Your task to perform on an android device: turn off translation in the chrome app Image 0: 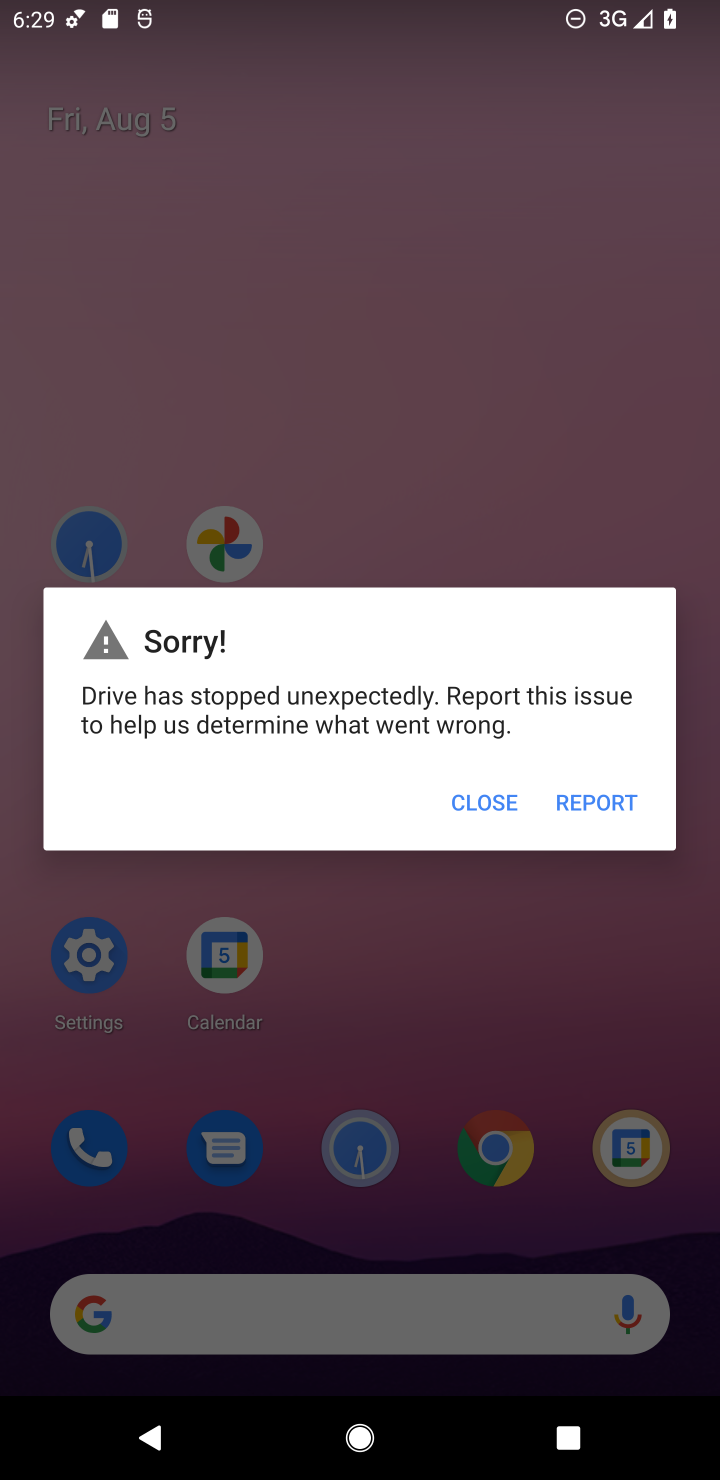
Step 0: press home button
Your task to perform on an android device: turn off translation in the chrome app Image 1: 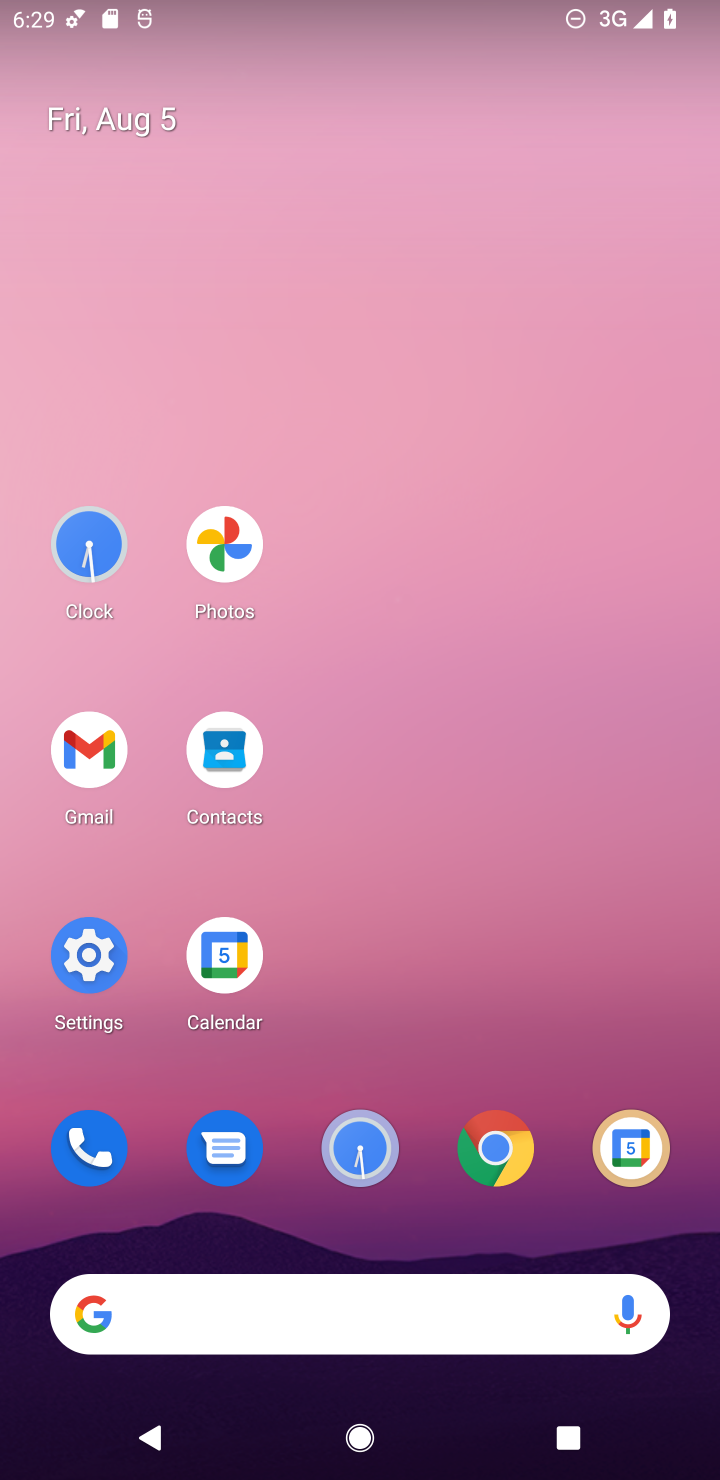
Step 1: click (488, 1184)
Your task to perform on an android device: turn off translation in the chrome app Image 2: 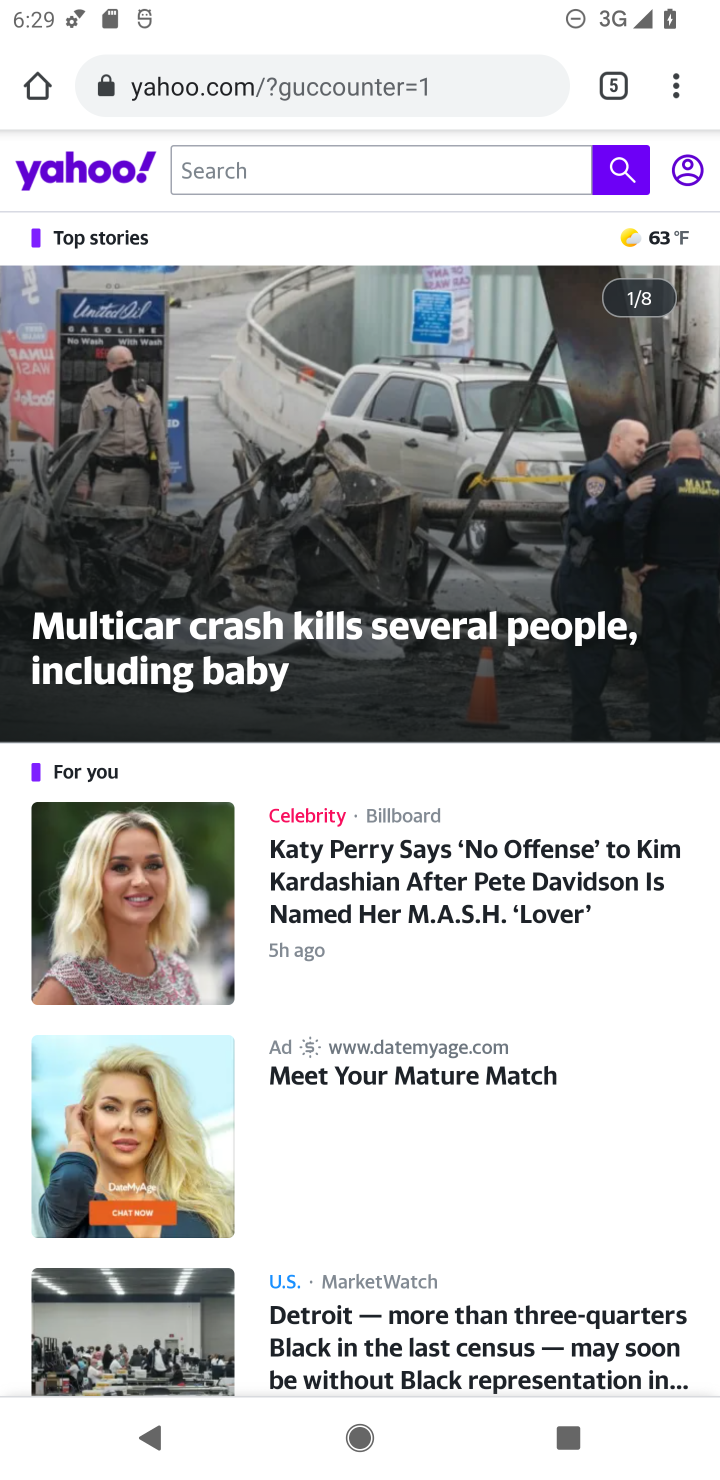
Step 2: click (683, 78)
Your task to perform on an android device: turn off translation in the chrome app Image 3: 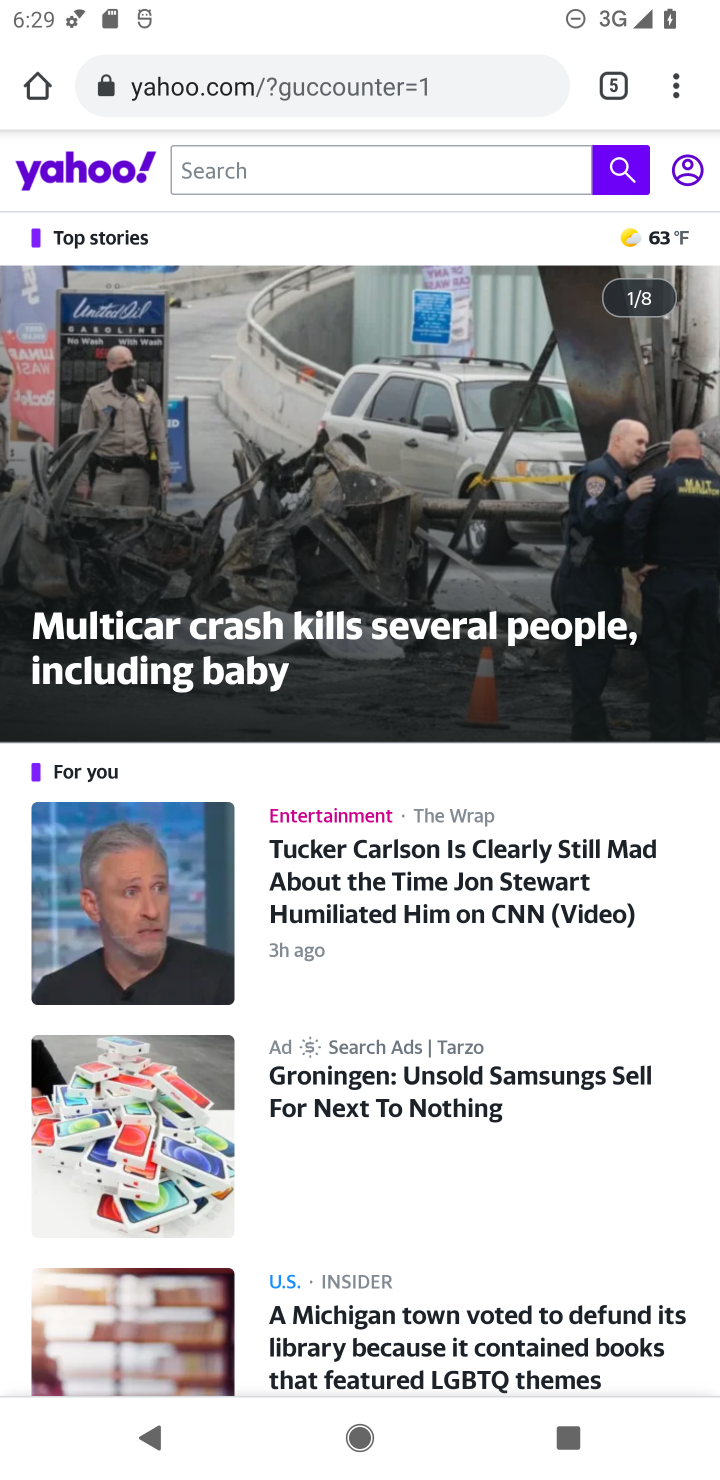
Step 3: click (684, 98)
Your task to perform on an android device: turn off translation in the chrome app Image 4: 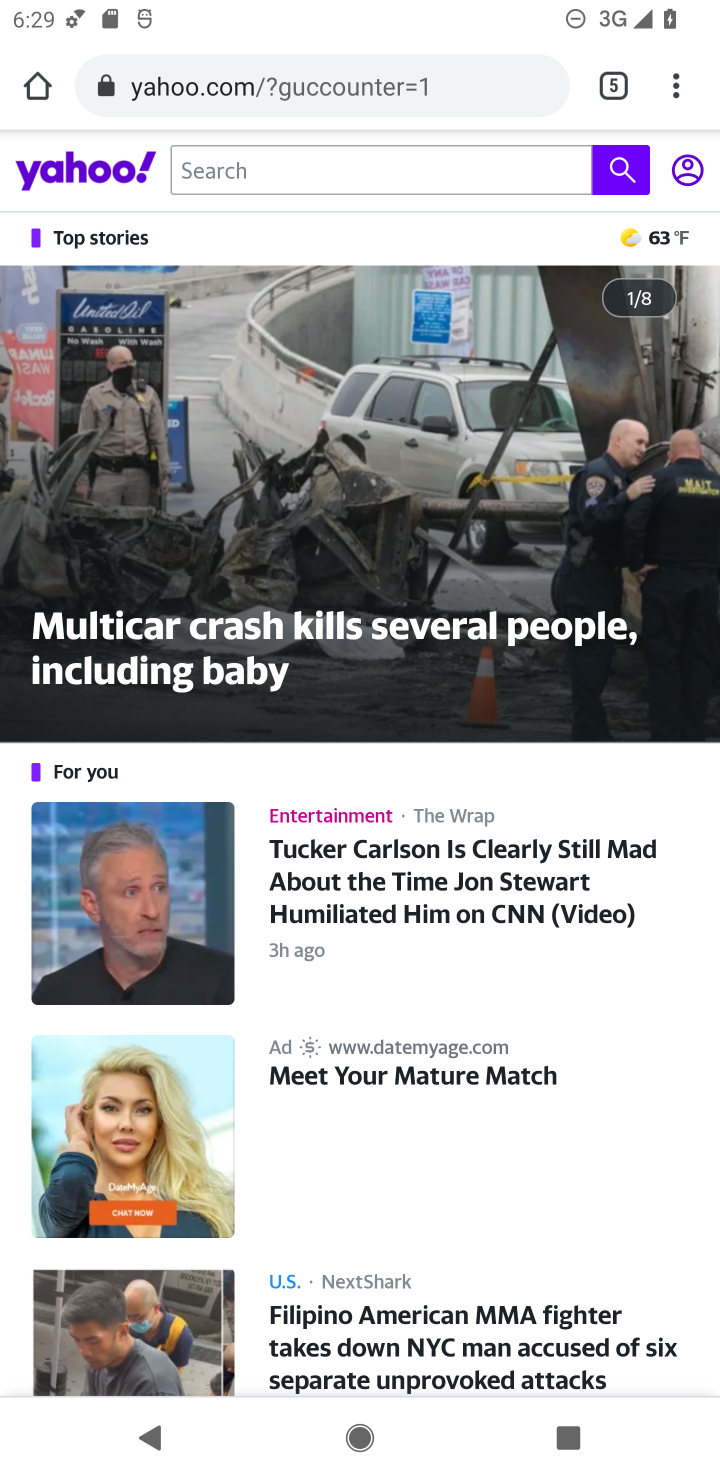
Step 4: click (665, 78)
Your task to perform on an android device: turn off translation in the chrome app Image 5: 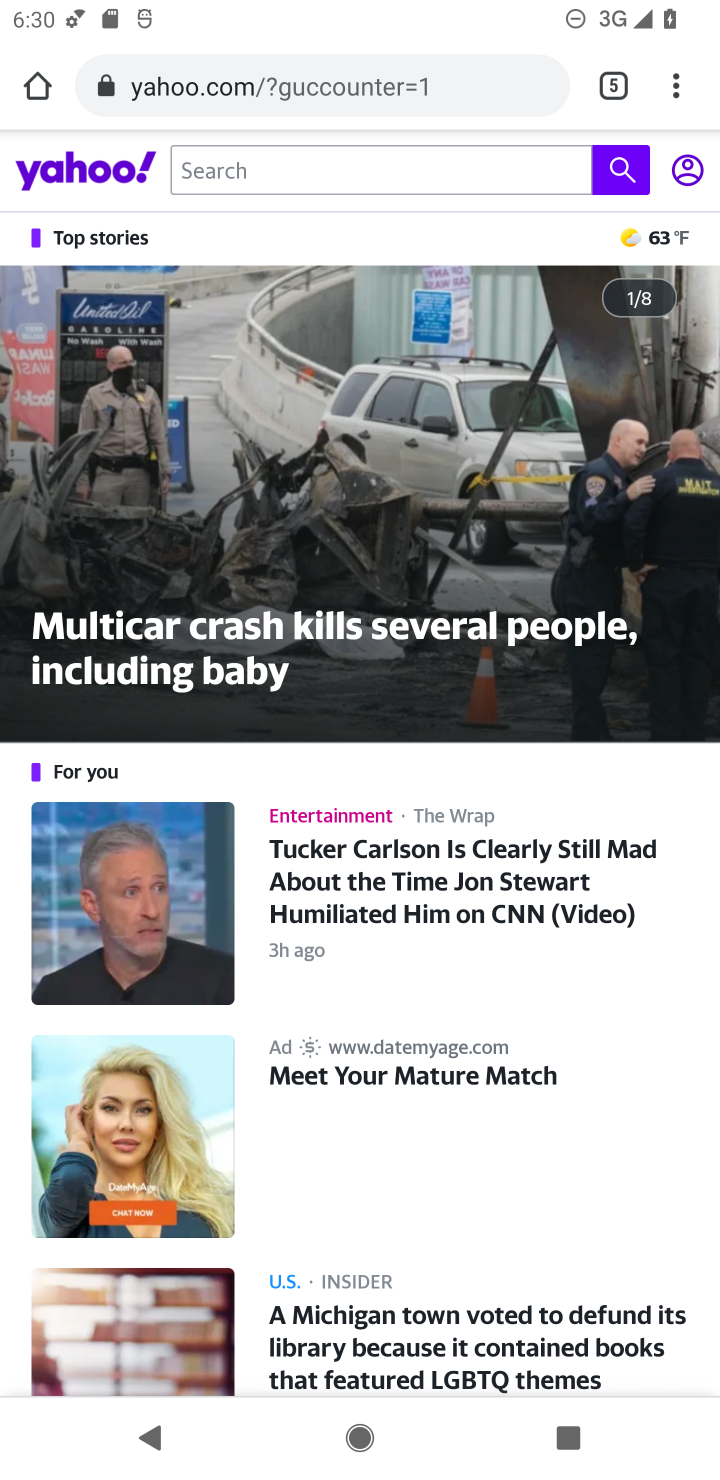
Step 5: click (679, 96)
Your task to perform on an android device: turn off translation in the chrome app Image 6: 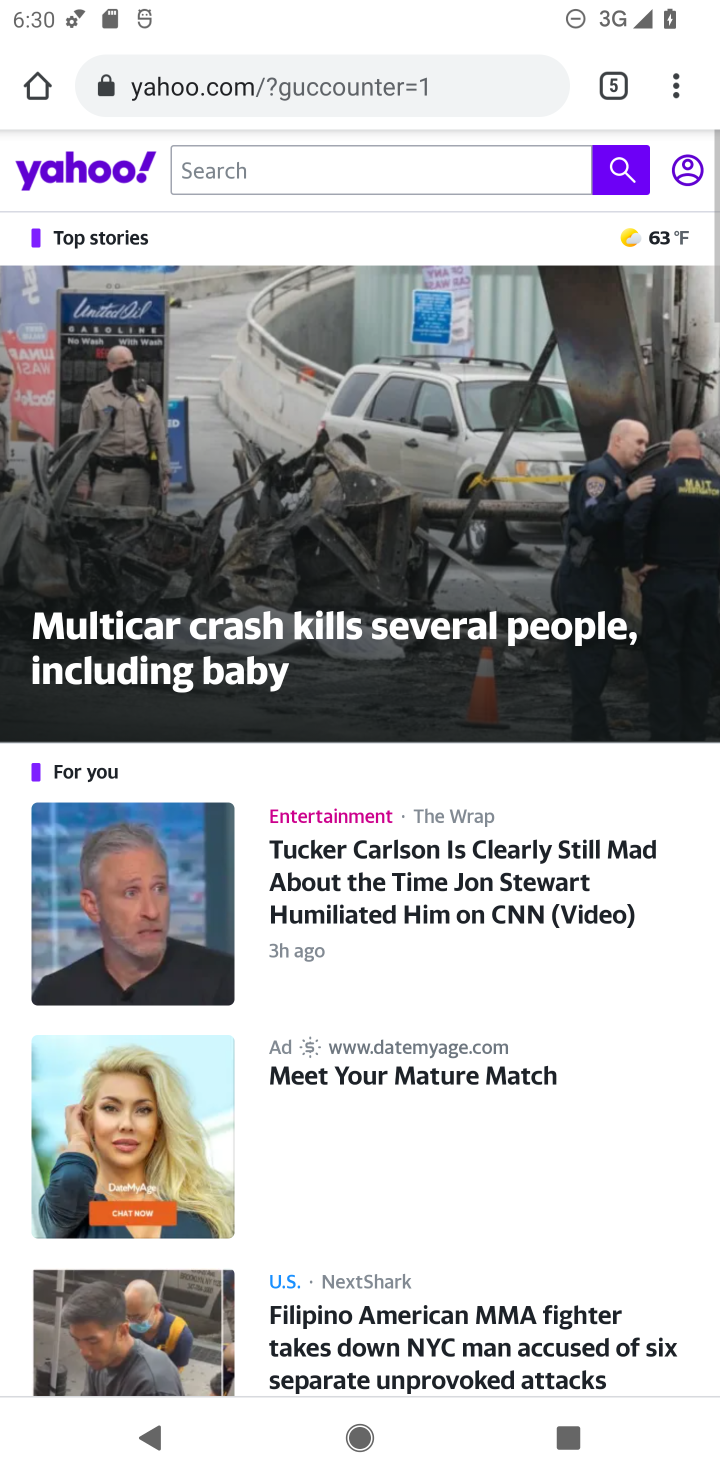
Step 6: click (681, 104)
Your task to perform on an android device: turn off translation in the chrome app Image 7: 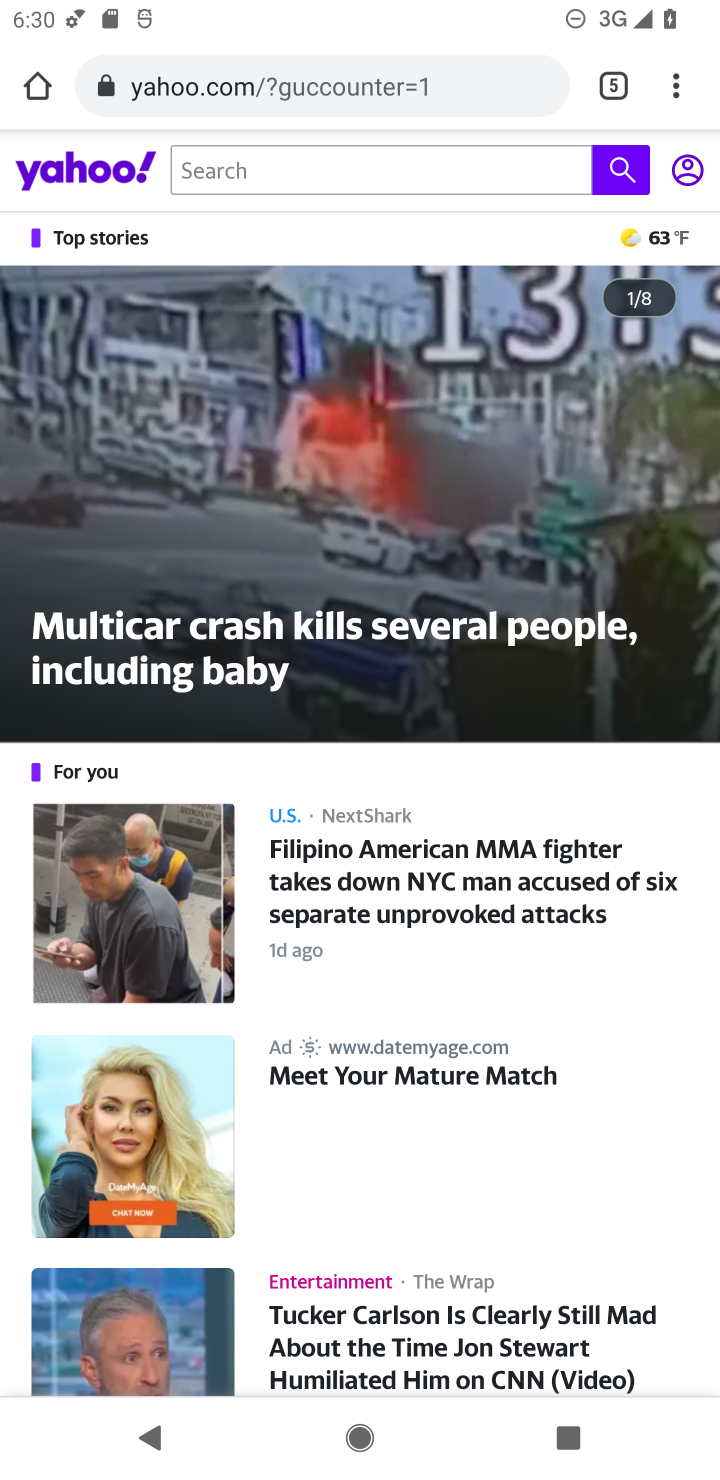
Step 7: click (670, 74)
Your task to perform on an android device: turn off translation in the chrome app Image 8: 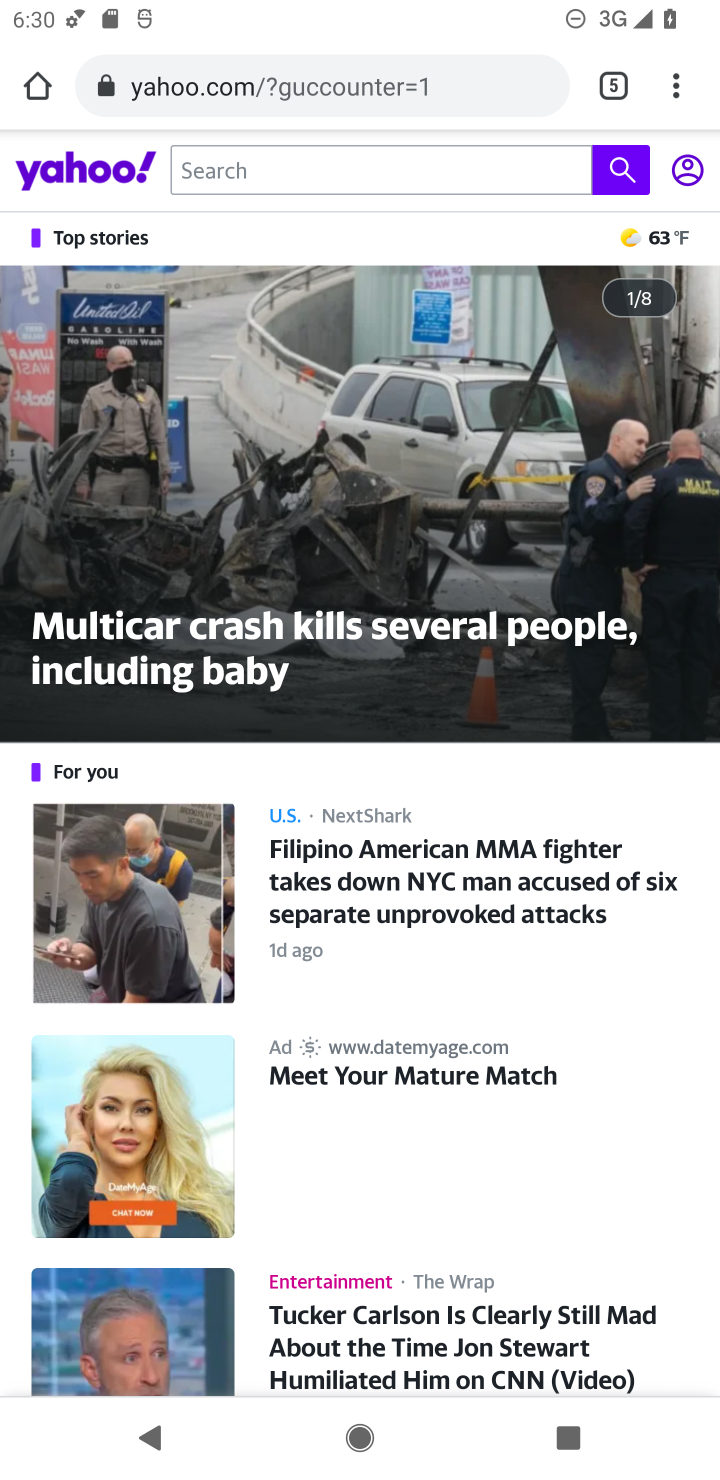
Step 8: click (679, 95)
Your task to perform on an android device: turn off translation in the chrome app Image 9: 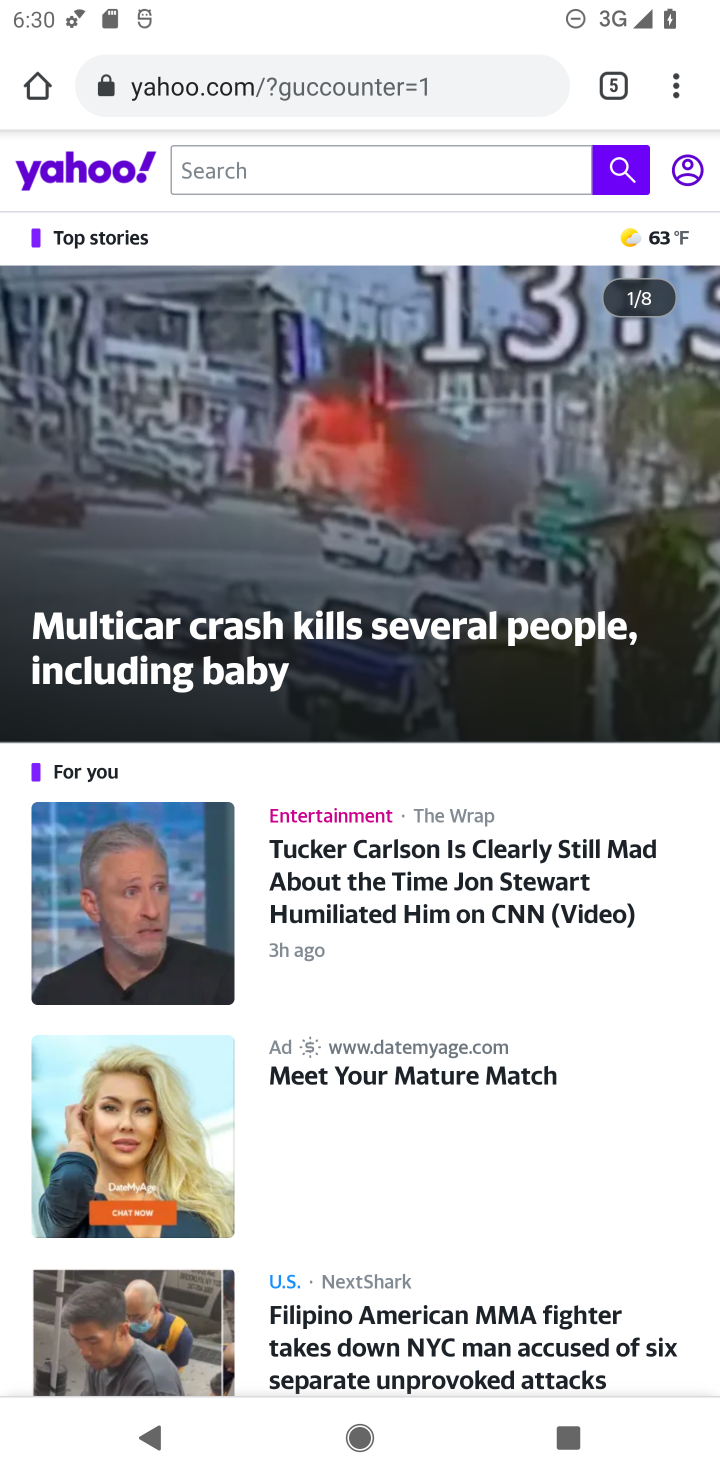
Step 9: click (676, 100)
Your task to perform on an android device: turn off translation in the chrome app Image 10: 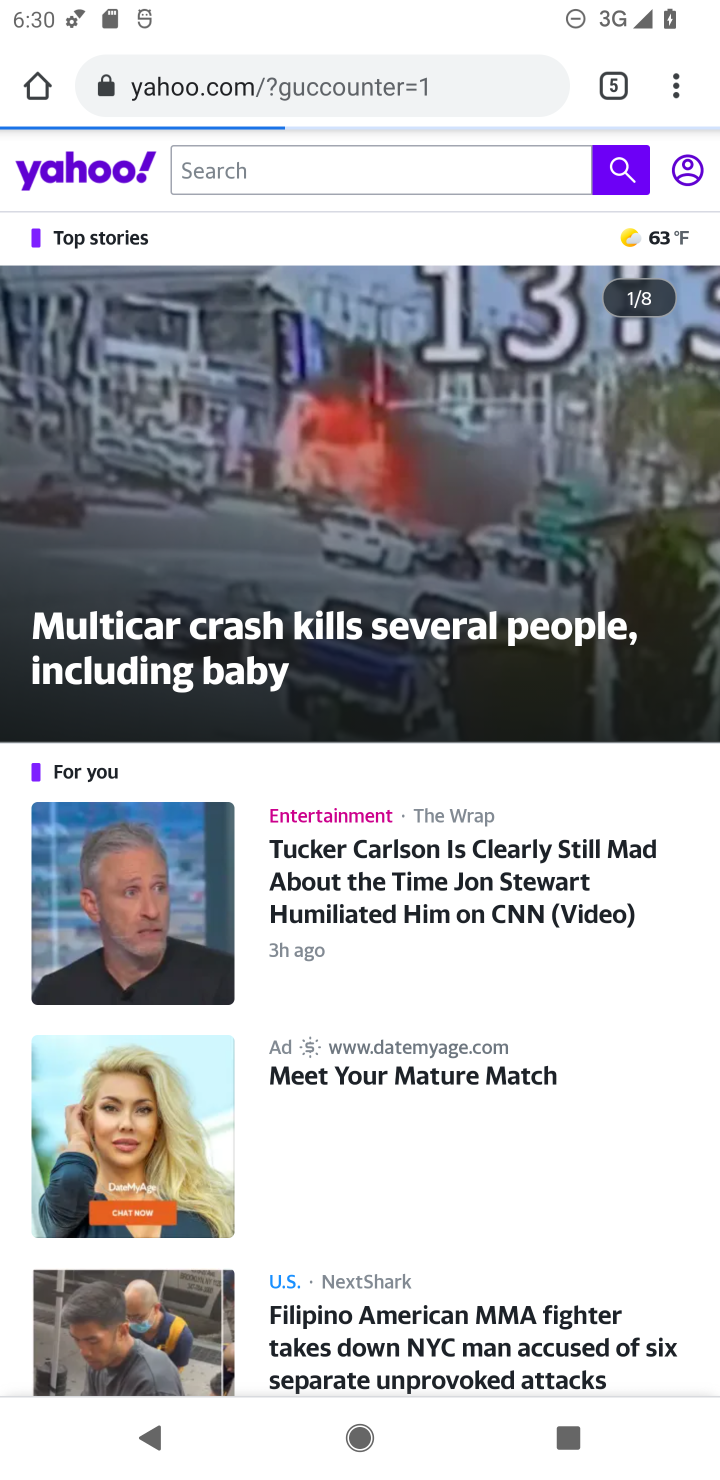
Step 10: click (676, 100)
Your task to perform on an android device: turn off translation in the chrome app Image 11: 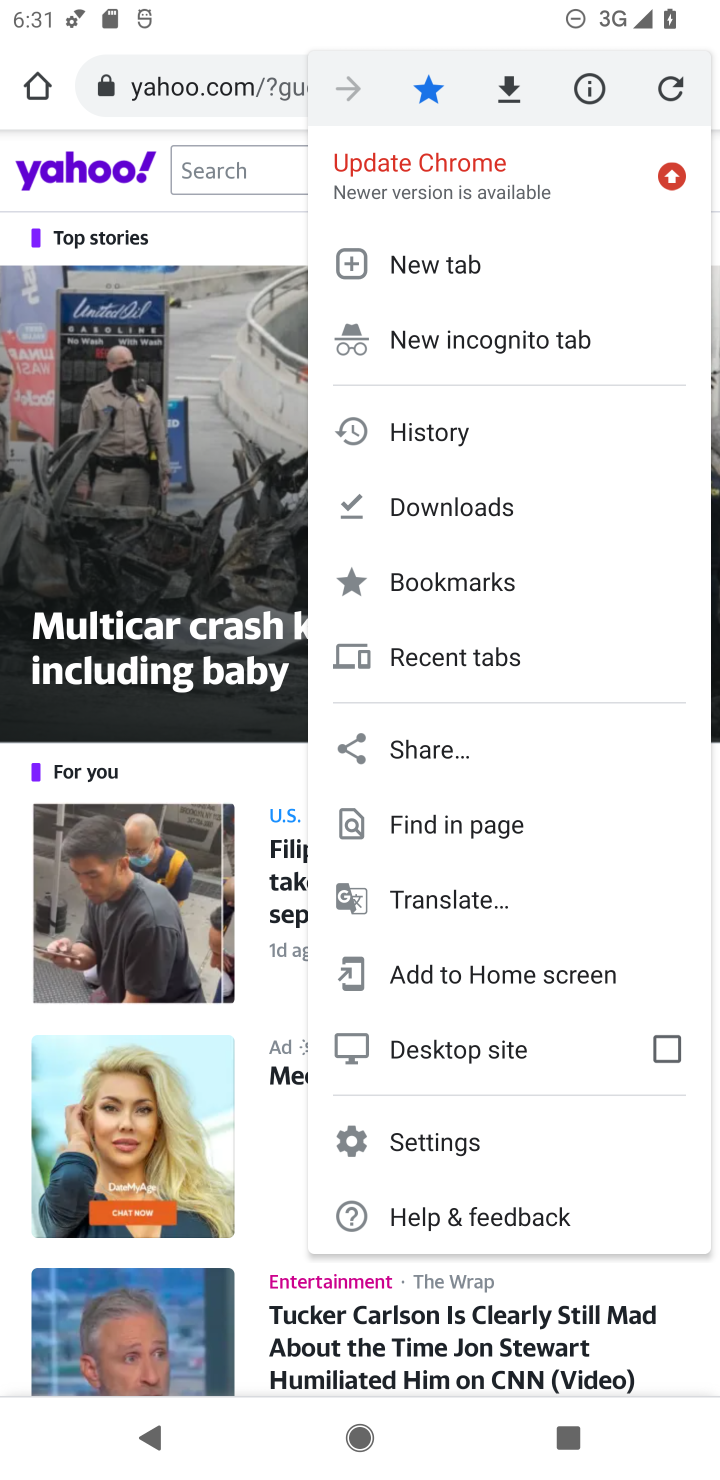
Step 11: click (423, 1155)
Your task to perform on an android device: turn off translation in the chrome app Image 12: 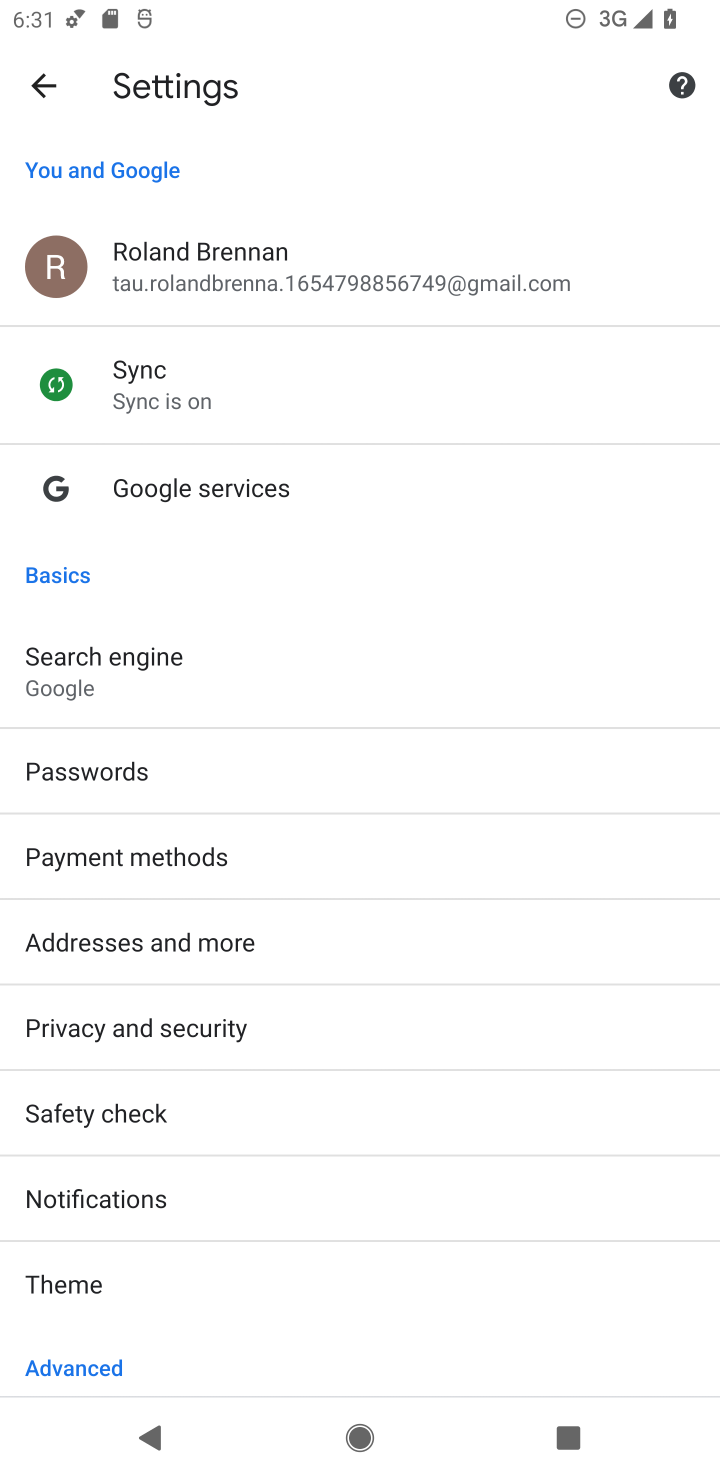
Step 12: drag from (274, 1316) to (150, 118)
Your task to perform on an android device: turn off translation in the chrome app Image 13: 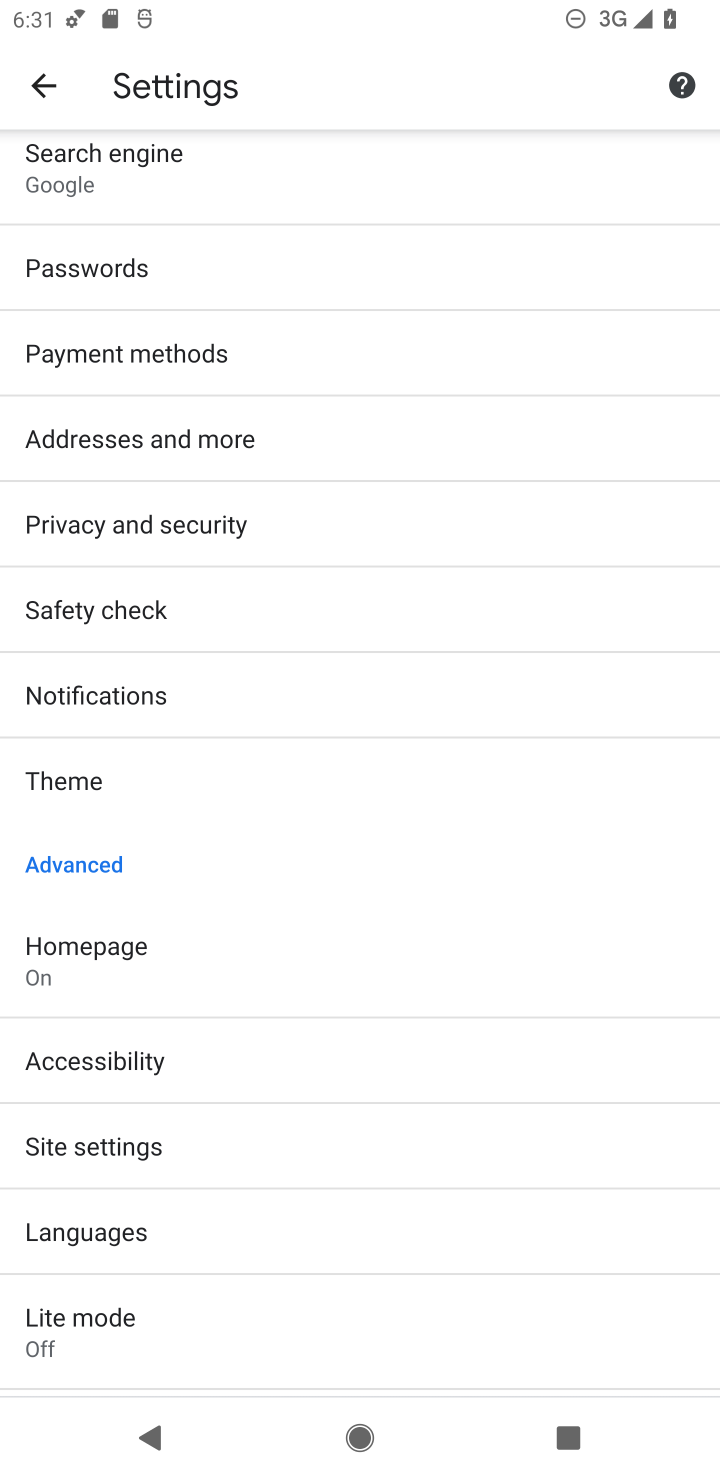
Step 13: click (117, 1210)
Your task to perform on an android device: turn off translation in the chrome app Image 14: 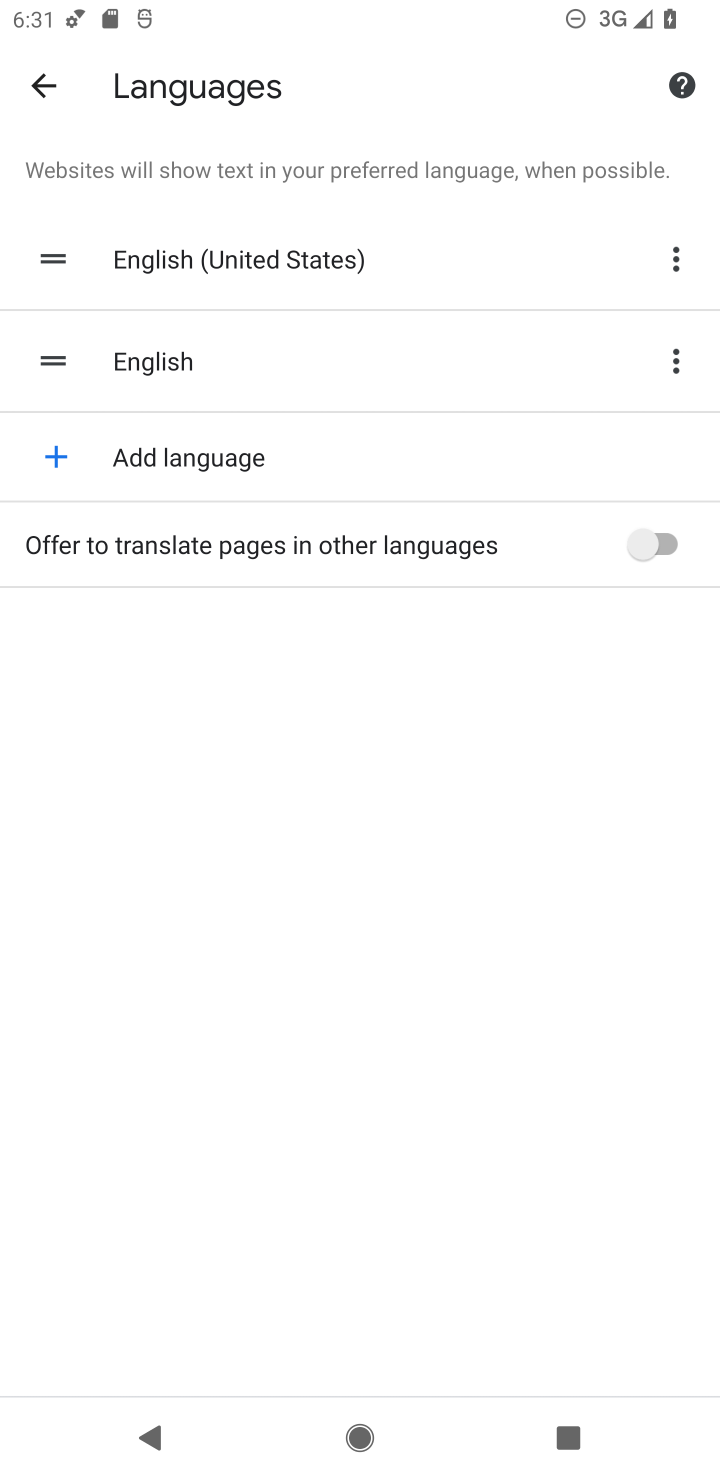
Step 14: task complete